Your task to perform on an android device: When is my next appointment? Image 0: 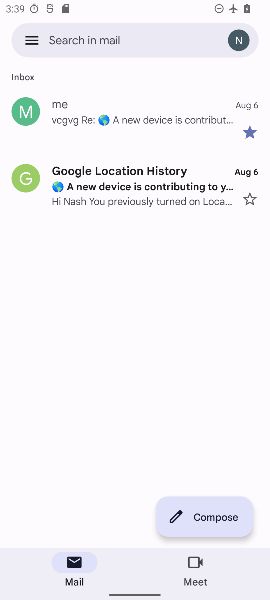
Step 0: press back button
Your task to perform on an android device: When is my next appointment? Image 1: 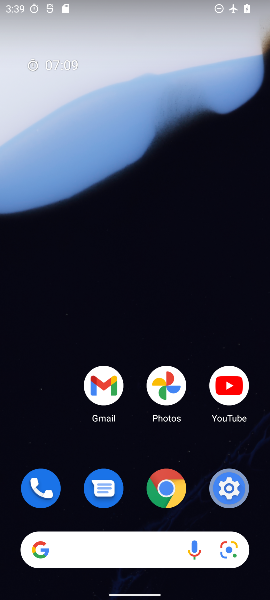
Step 1: drag from (139, 449) to (157, 87)
Your task to perform on an android device: When is my next appointment? Image 2: 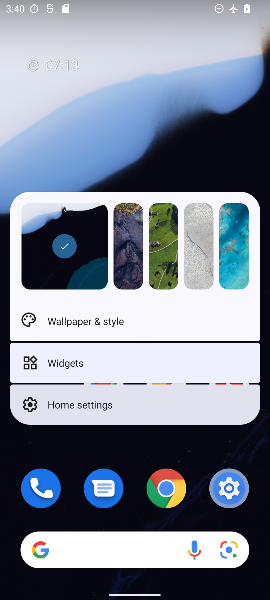
Step 2: click (13, 518)
Your task to perform on an android device: When is my next appointment? Image 3: 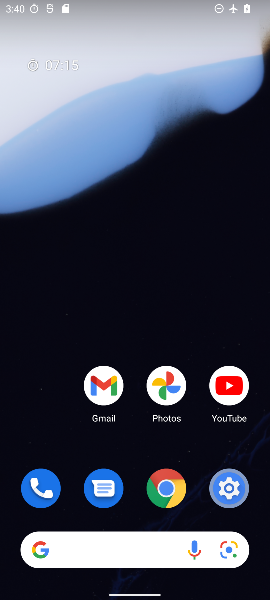
Step 3: drag from (78, 508) to (46, 169)
Your task to perform on an android device: When is my next appointment? Image 4: 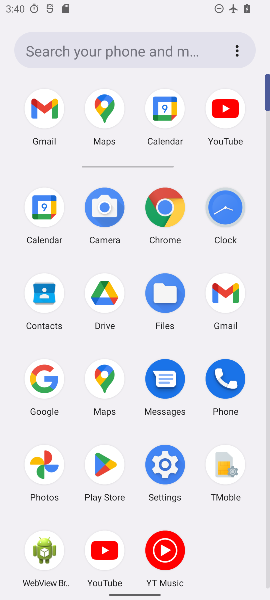
Step 4: click (159, 107)
Your task to perform on an android device: When is my next appointment? Image 5: 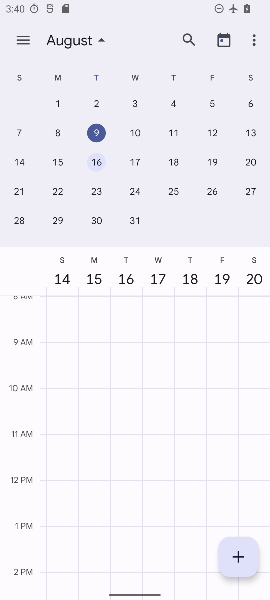
Step 5: click (25, 40)
Your task to perform on an android device: When is my next appointment? Image 6: 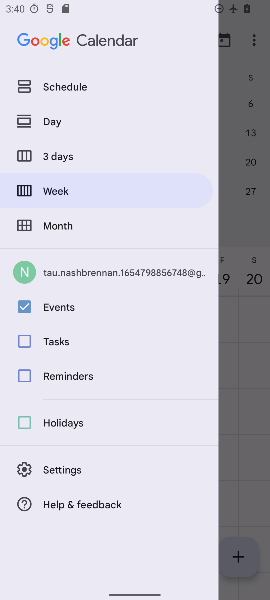
Step 6: click (65, 82)
Your task to perform on an android device: When is my next appointment? Image 7: 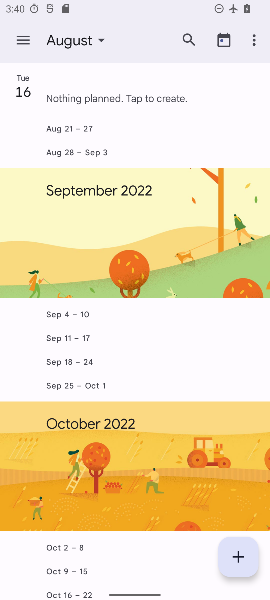
Step 7: task complete